Your task to perform on an android device: Show me popular games on the Play Store Image 0: 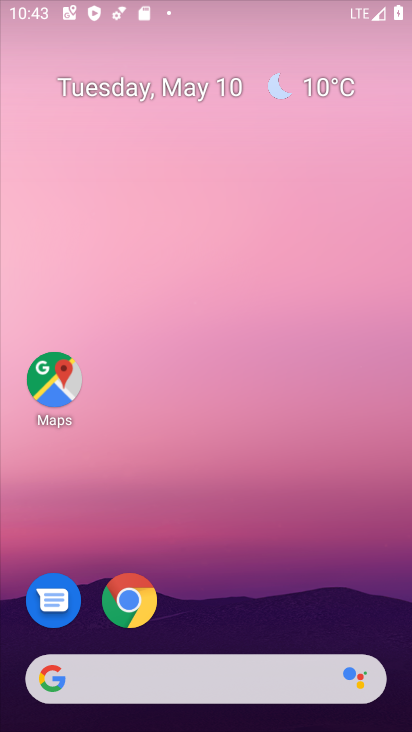
Step 0: drag from (237, 257) to (227, 111)
Your task to perform on an android device: Show me popular games on the Play Store Image 1: 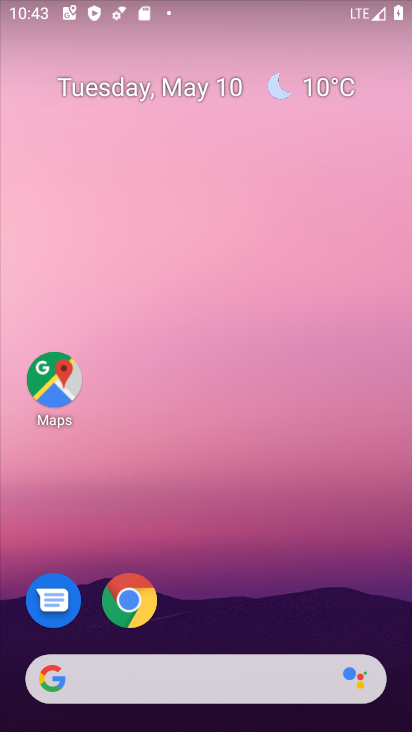
Step 1: drag from (267, 601) to (229, 92)
Your task to perform on an android device: Show me popular games on the Play Store Image 2: 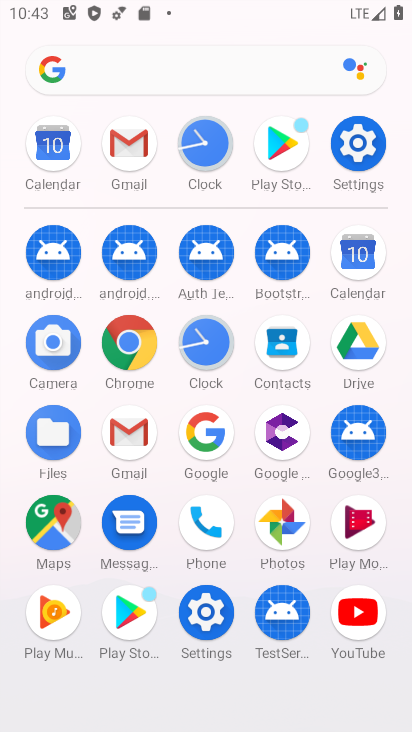
Step 2: click (121, 619)
Your task to perform on an android device: Show me popular games on the Play Store Image 3: 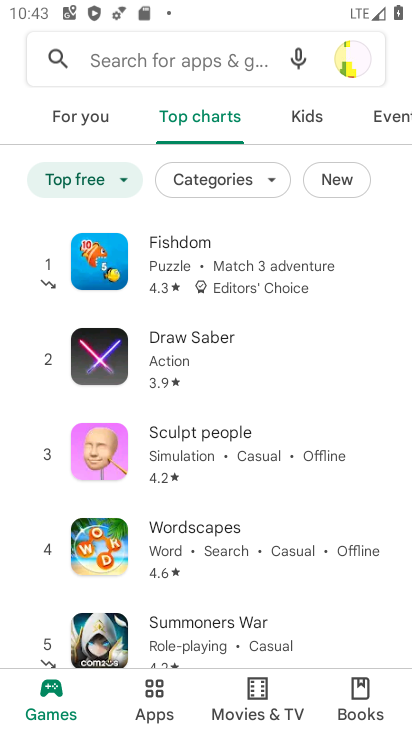
Step 3: task complete